Your task to perform on an android device: search for starred emails in the gmail app Image 0: 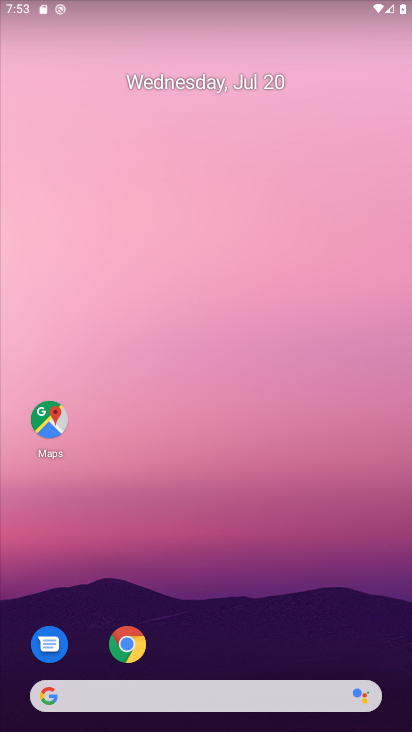
Step 0: drag from (217, 690) to (213, 273)
Your task to perform on an android device: search for starred emails in the gmail app Image 1: 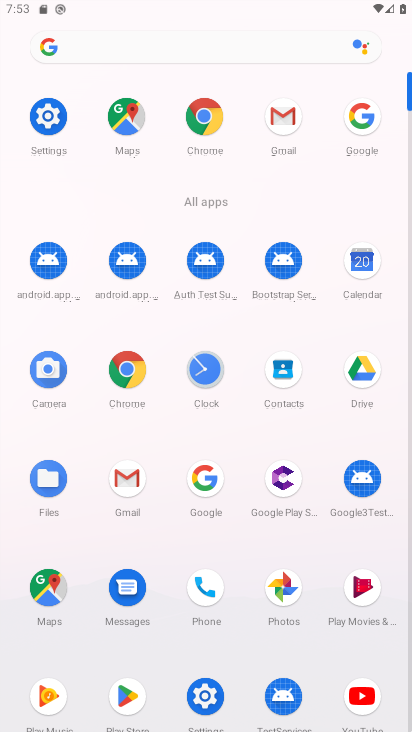
Step 1: click (279, 129)
Your task to perform on an android device: search for starred emails in the gmail app Image 2: 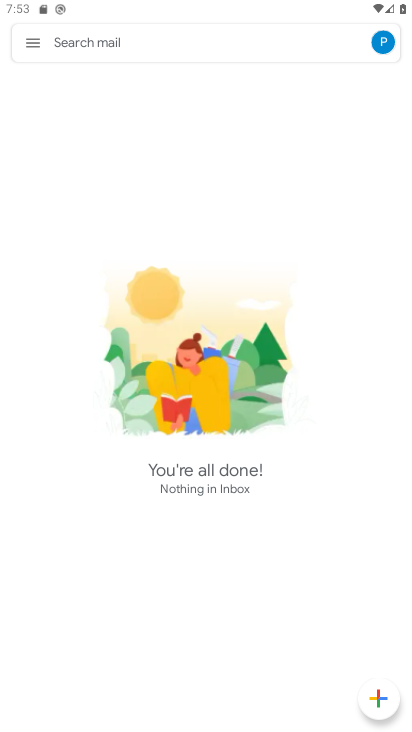
Step 2: click (29, 48)
Your task to perform on an android device: search for starred emails in the gmail app Image 3: 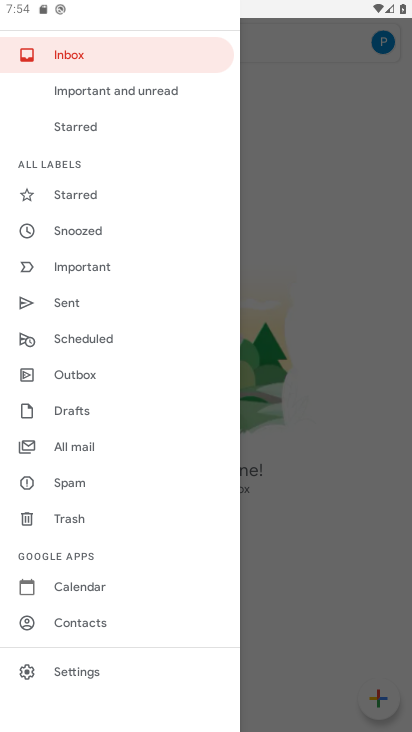
Step 3: click (67, 131)
Your task to perform on an android device: search for starred emails in the gmail app Image 4: 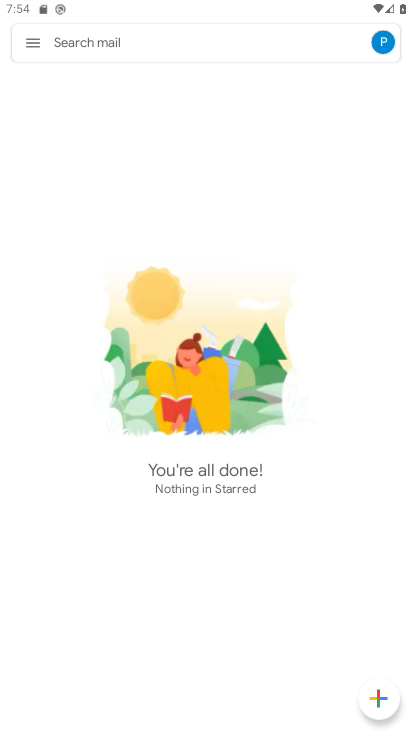
Step 4: task complete